Your task to perform on an android device: Open maps Image 0: 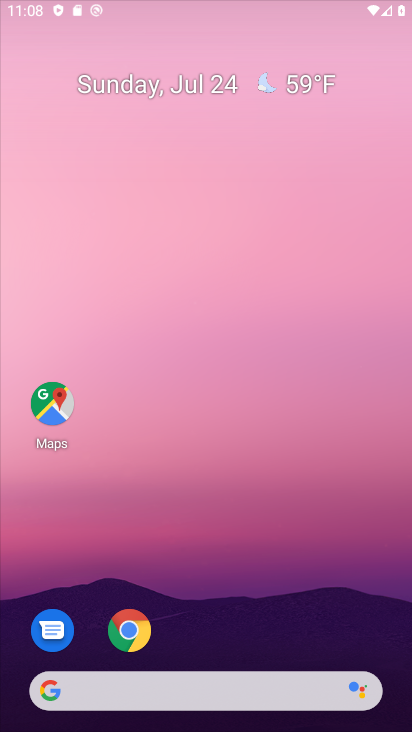
Step 0: press home button
Your task to perform on an android device: Open maps Image 1: 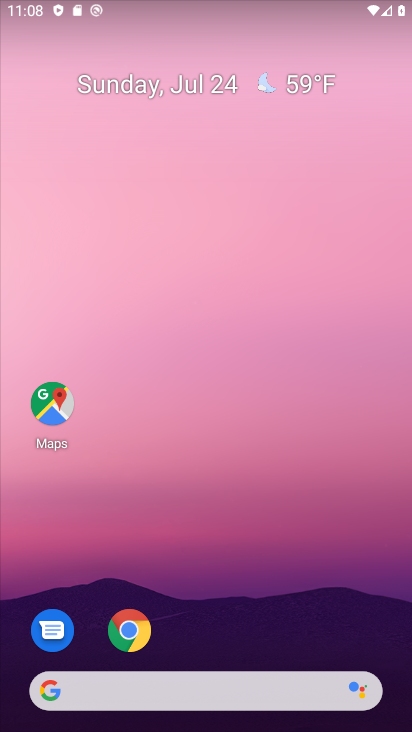
Step 1: click (50, 396)
Your task to perform on an android device: Open maps Image 2: 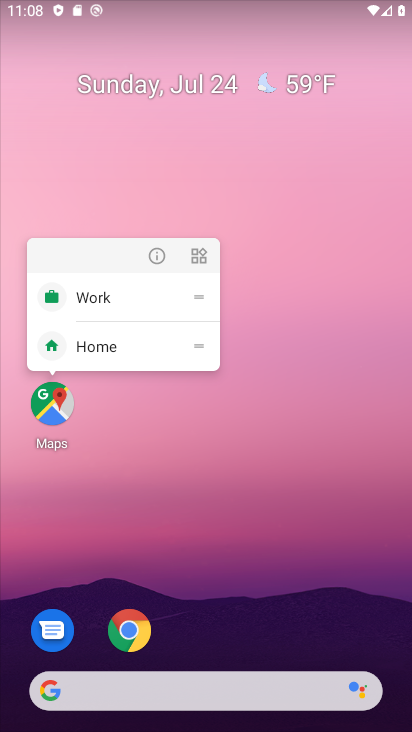
Step 2: click (50, 396)
Your task to perform on an android device: Open maps Image 3: 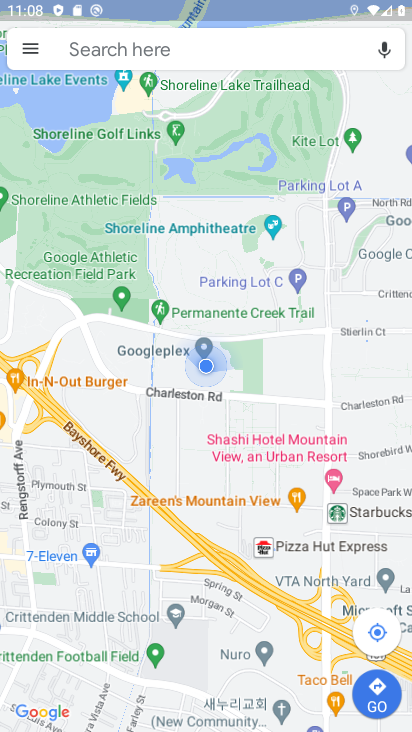
Step 3: task complete